Your task to perform on an android device: Search for razer huntsman on walmart, select the first entry, add it to the cart, then select checkout. Image 0: 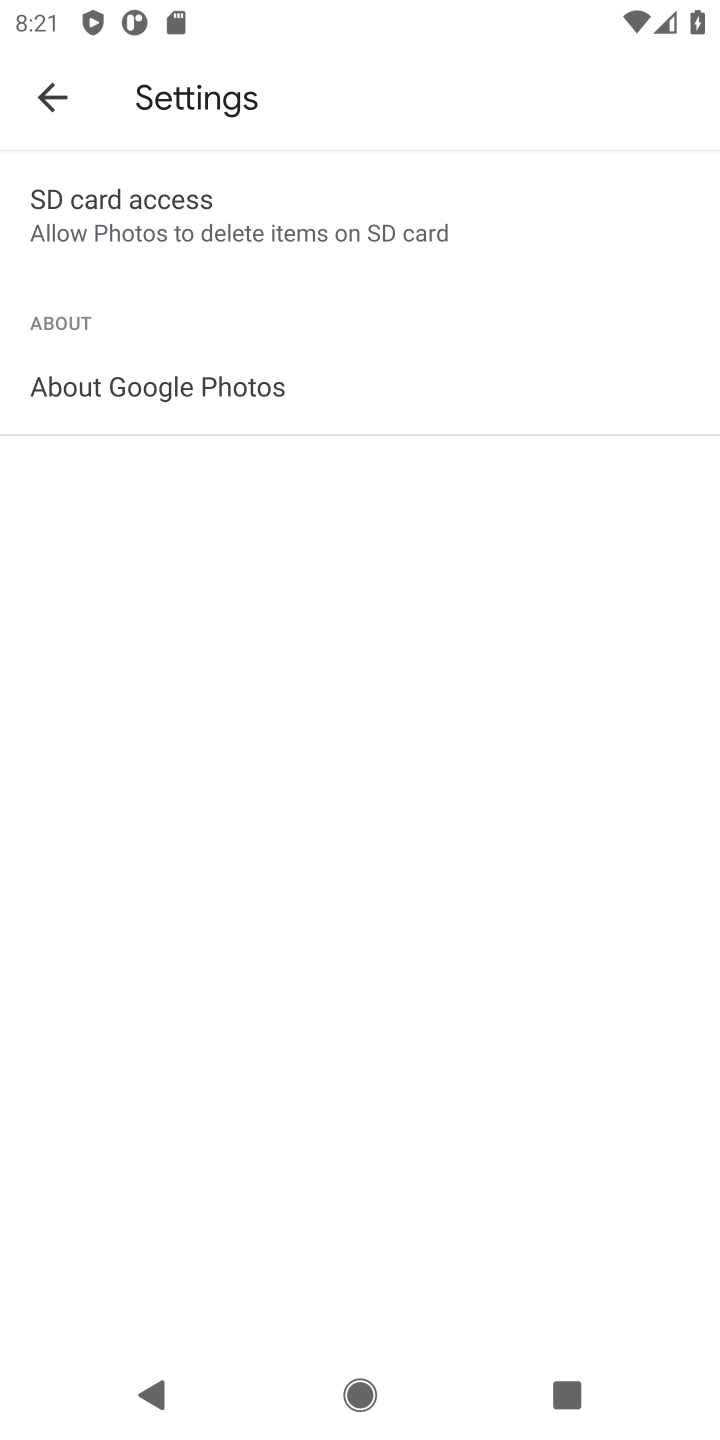
Step 0: press home button
Your task to perform on an android device: Search for razer huntsman on walmart, select the first entry, add it to the cart, then select checkout. Image 1: 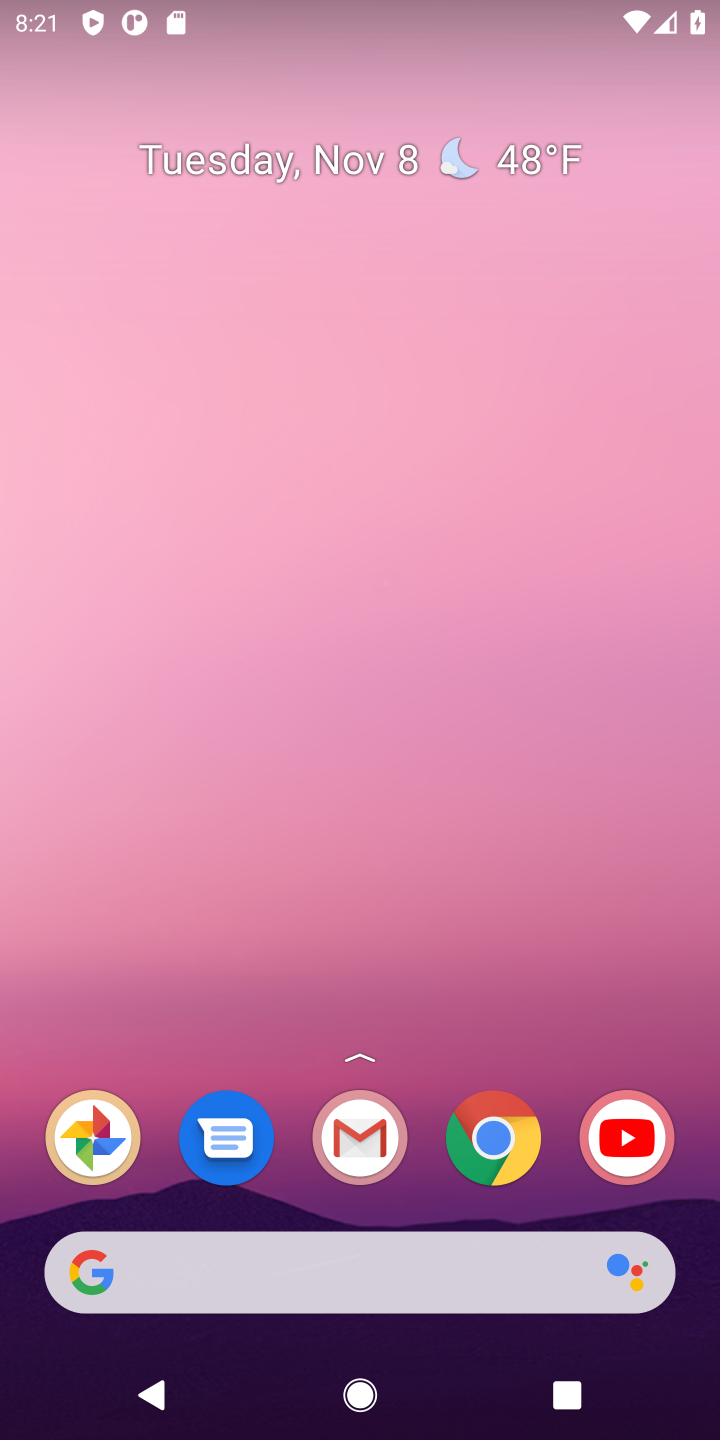
Step 1: click (505, 1149)
Your task to perform on an android device: Search for razer huntsman on walmart, select the first entry, add it to the cart, then select checkout. Image 2: 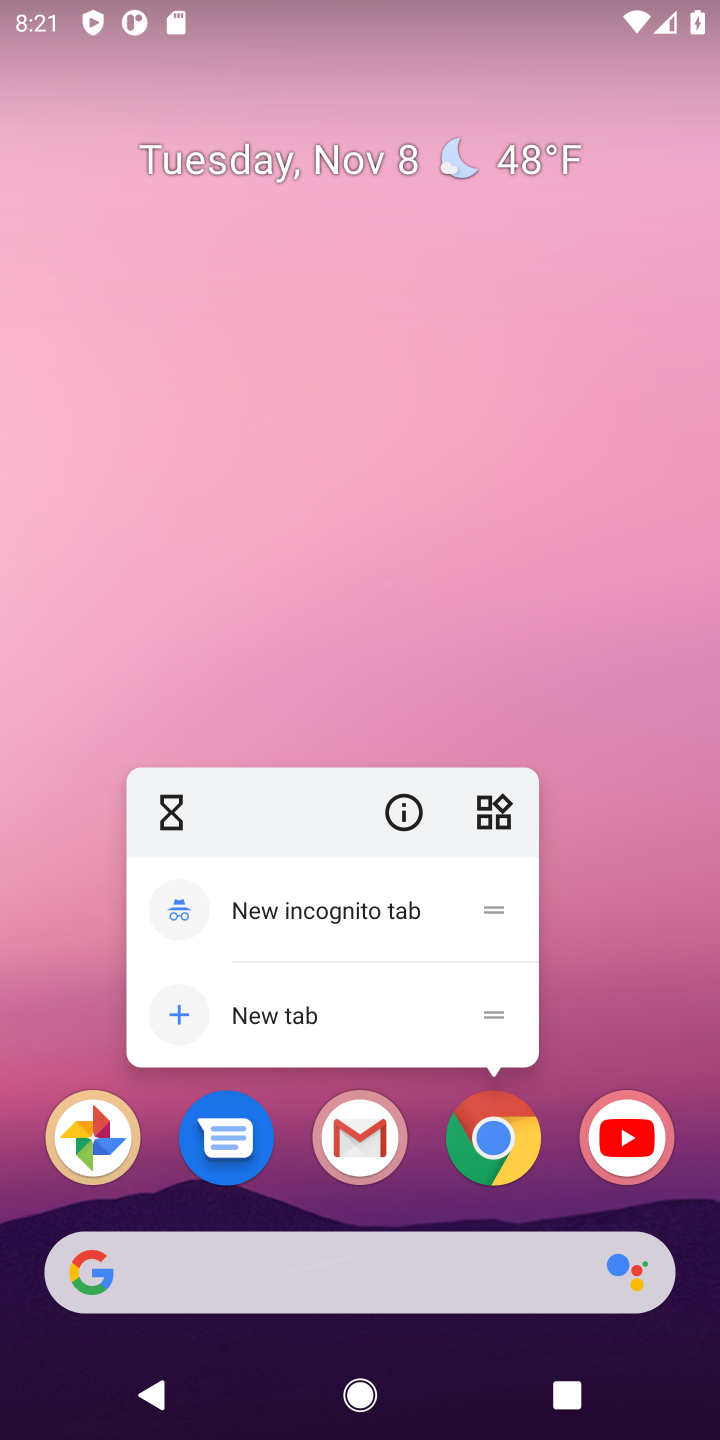
Step 2: click (488, 1129)
Your task to perform on an android device: Search for razer huntsman on walmart, select the first entry, add it to the cart, then select checkout. Image 3: 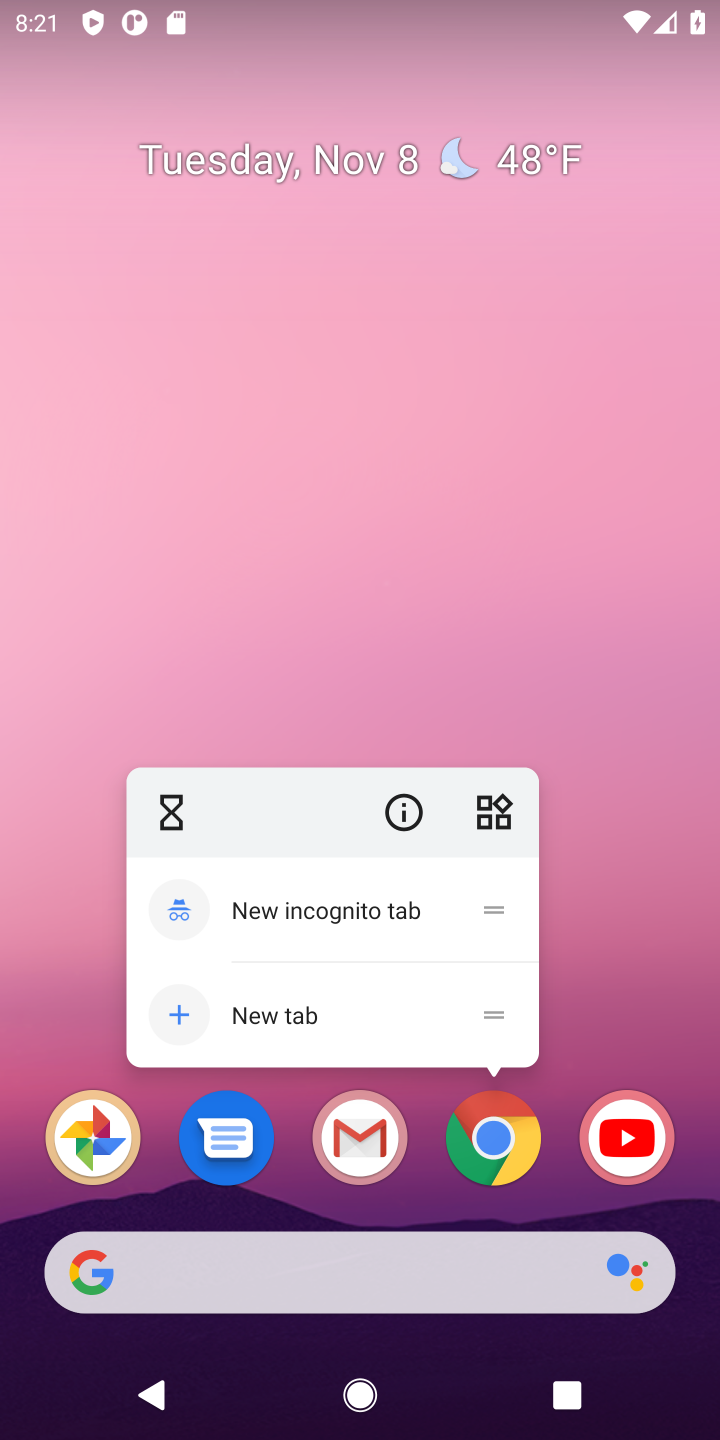
Step 3: click (487, 1142)
Your task to perform on an android device: Search for razer huntsman on walmart, select the first entry, add it to the cart, then select checkout. Image 4: 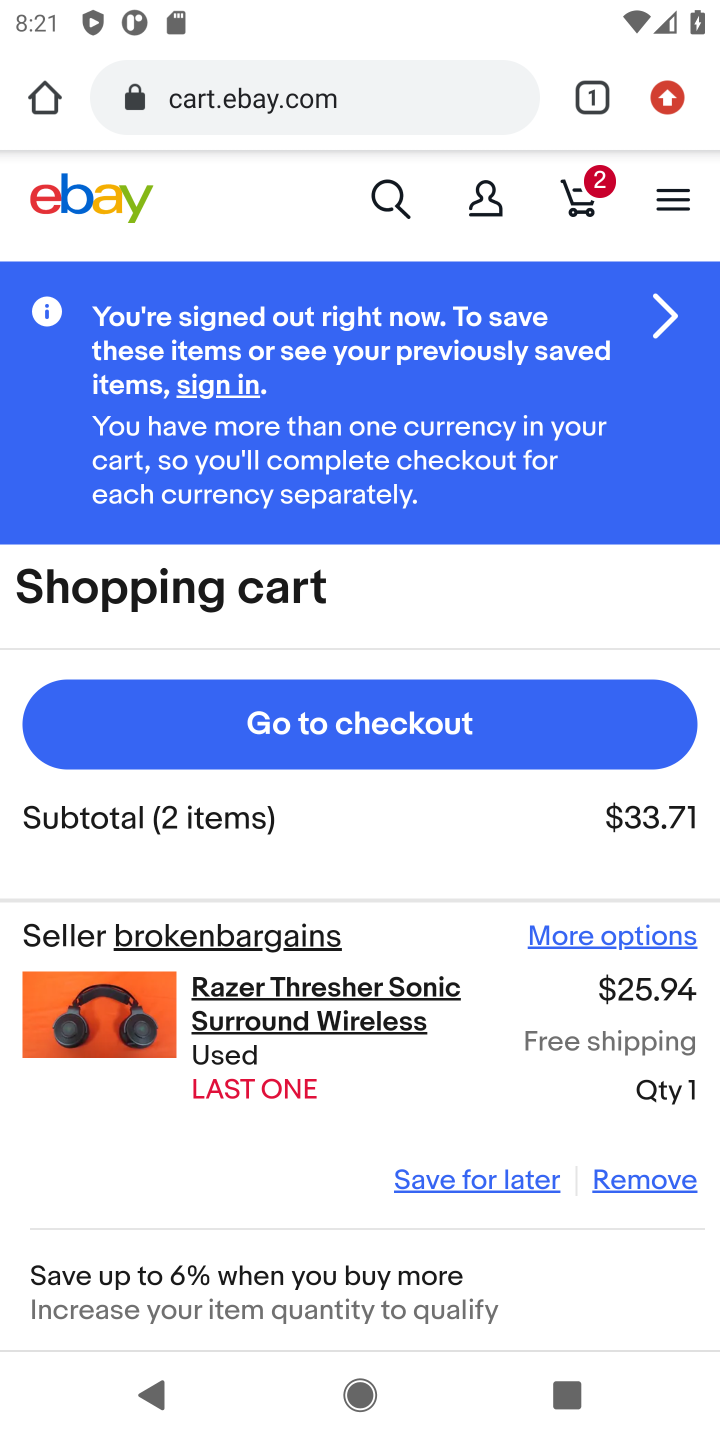
Step 4: click (342, 93)
Your task to perform on an android device: Search for razer huntsman on walmart, select the first entry, add it to the cart, then select checkout. Image 5: 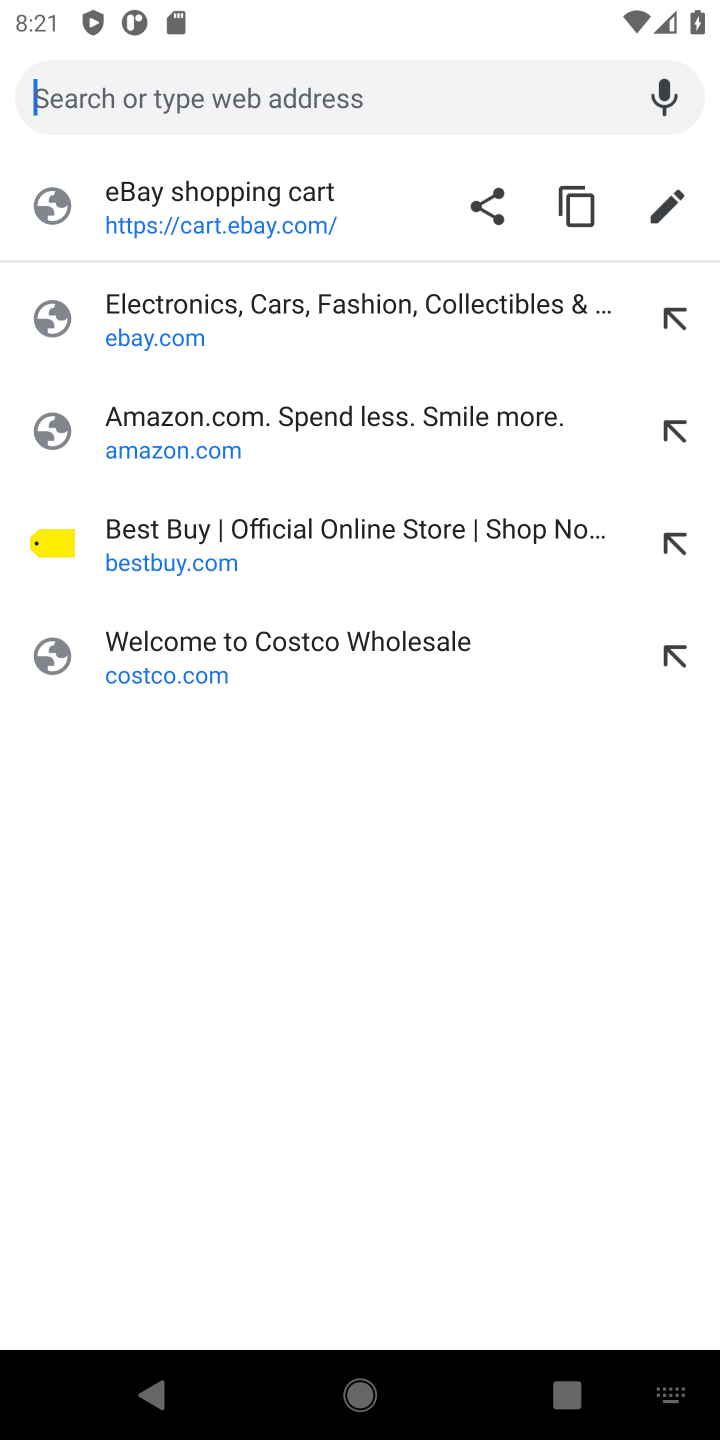
Step 5: type "walmart"
Your task to perform on an android device: Search for razer huntsman on walmart, select the first entry, add it to the cart, then select checkout. Image 6: 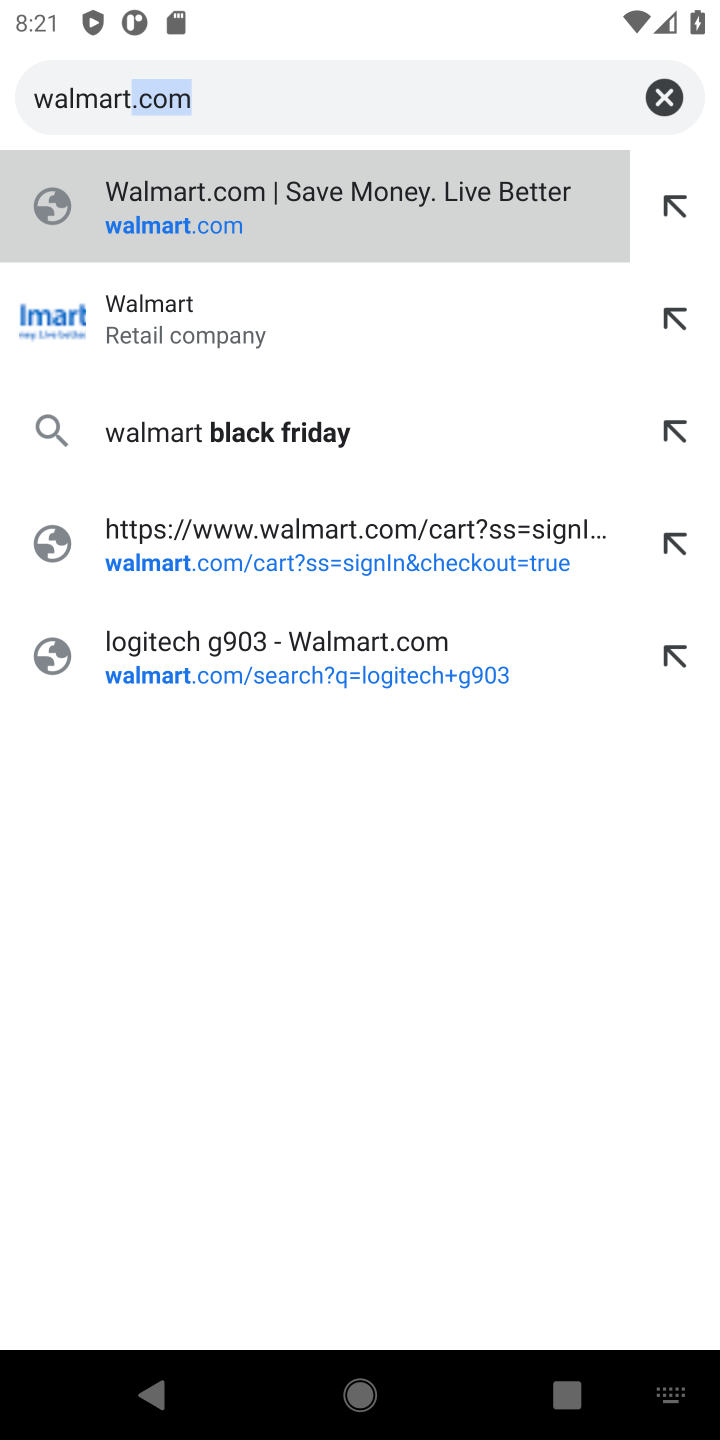
Step 6: press enter
Your task to perform on an android device: Search for razer huntsman on walmart, select the first entry, add it to the cart, then select checkout. Image 7: 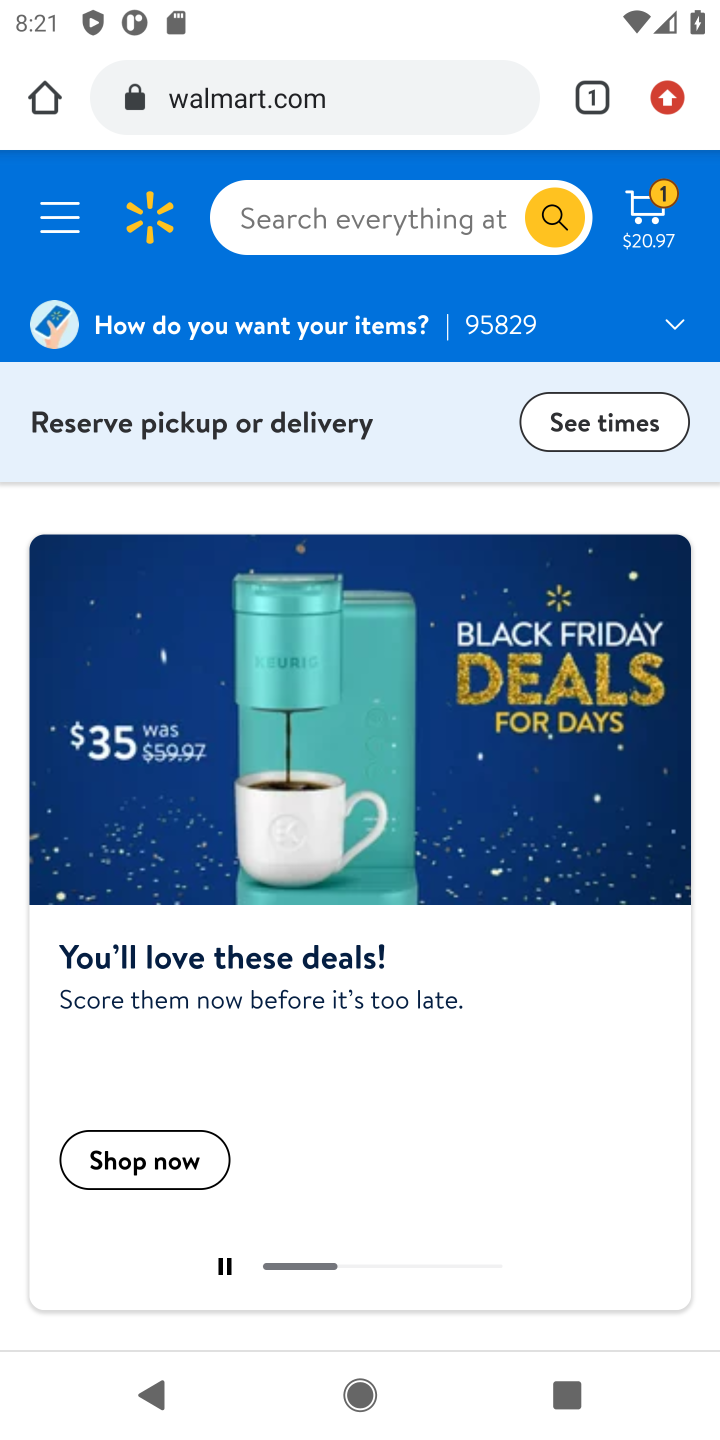
Step 7: click (369, 213)
Your task to perform on an android device: Search for razer huntsman on walmart, select the first entry, add it to the cart, then select checkout. Image 8: 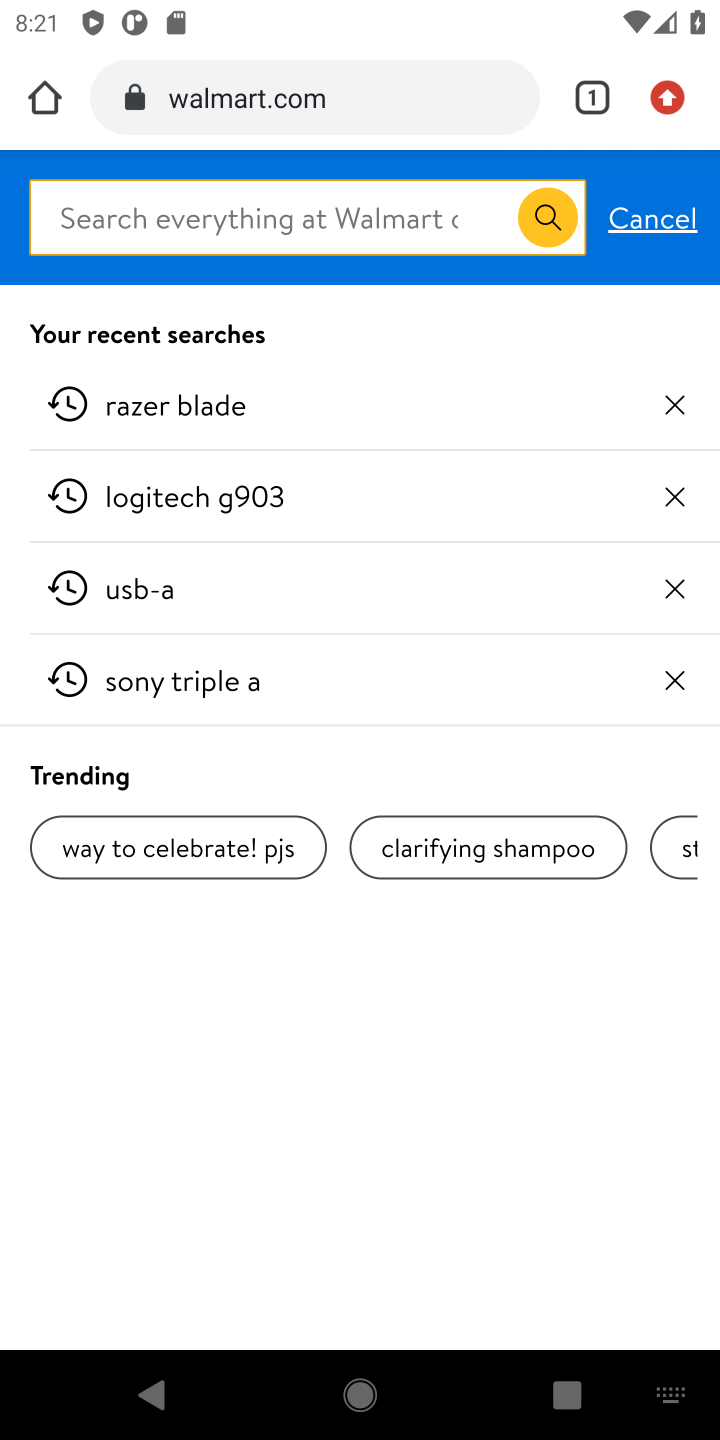
Step 8: type " razer huntsman"
Your task to perform on an android device: Search for razer huntsman on walmart, select the first entry, add it to the cart, then select checkout. Image 9: 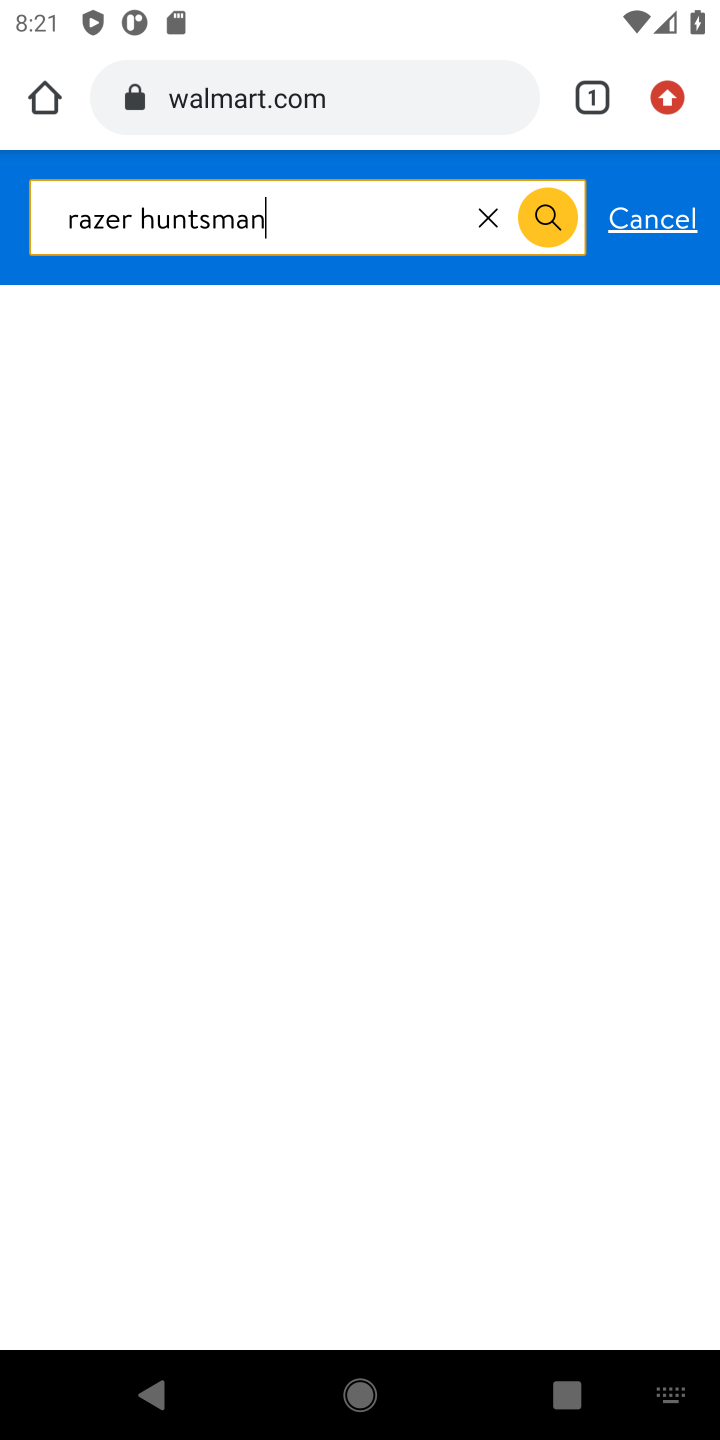
Step 9: press enter
Your task to perform on an android device: Search for razer huntsman on walmart, select the first entry, add it to the cart, then select checkout. Image 10: 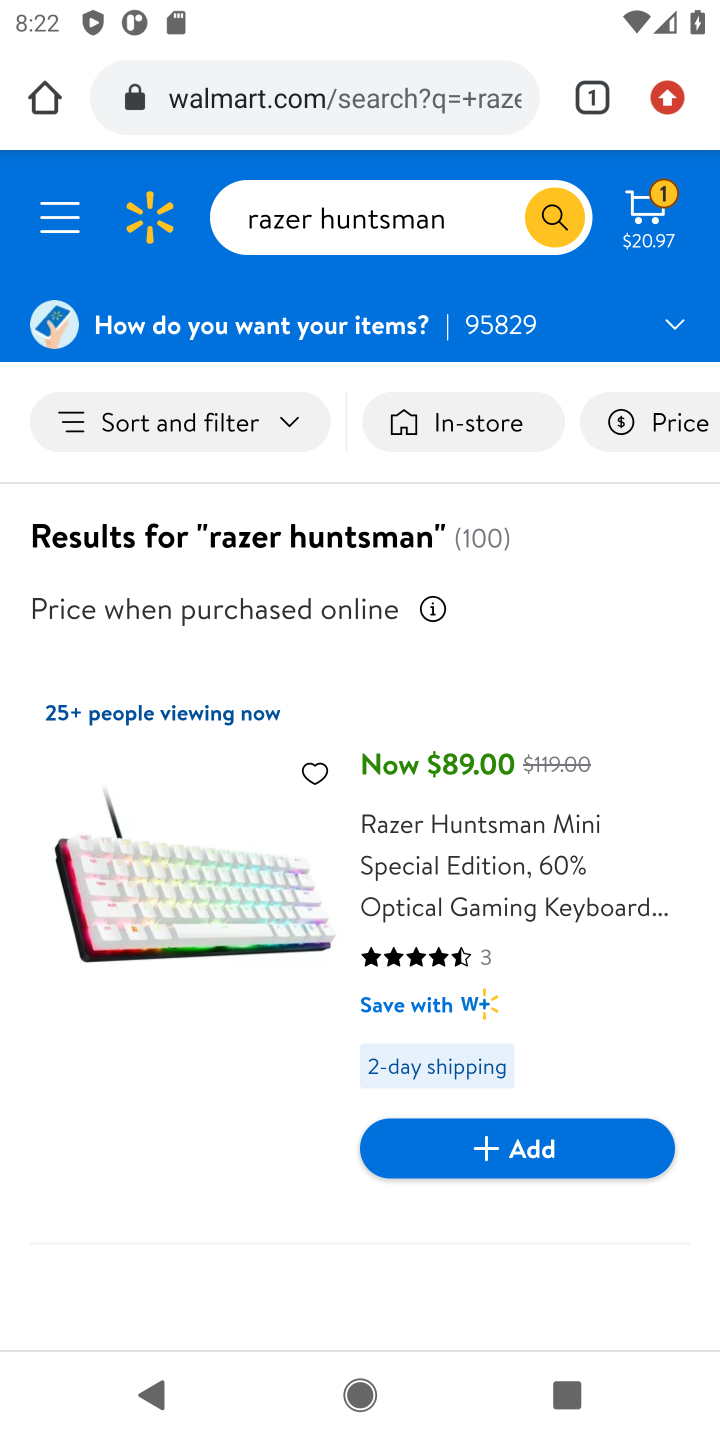
Step 10: click (491, 837)
Your task to perform on an android device: Search for razer huntsman on walmart, select the first entry, add it to the cart, then select checkout. Image 11: 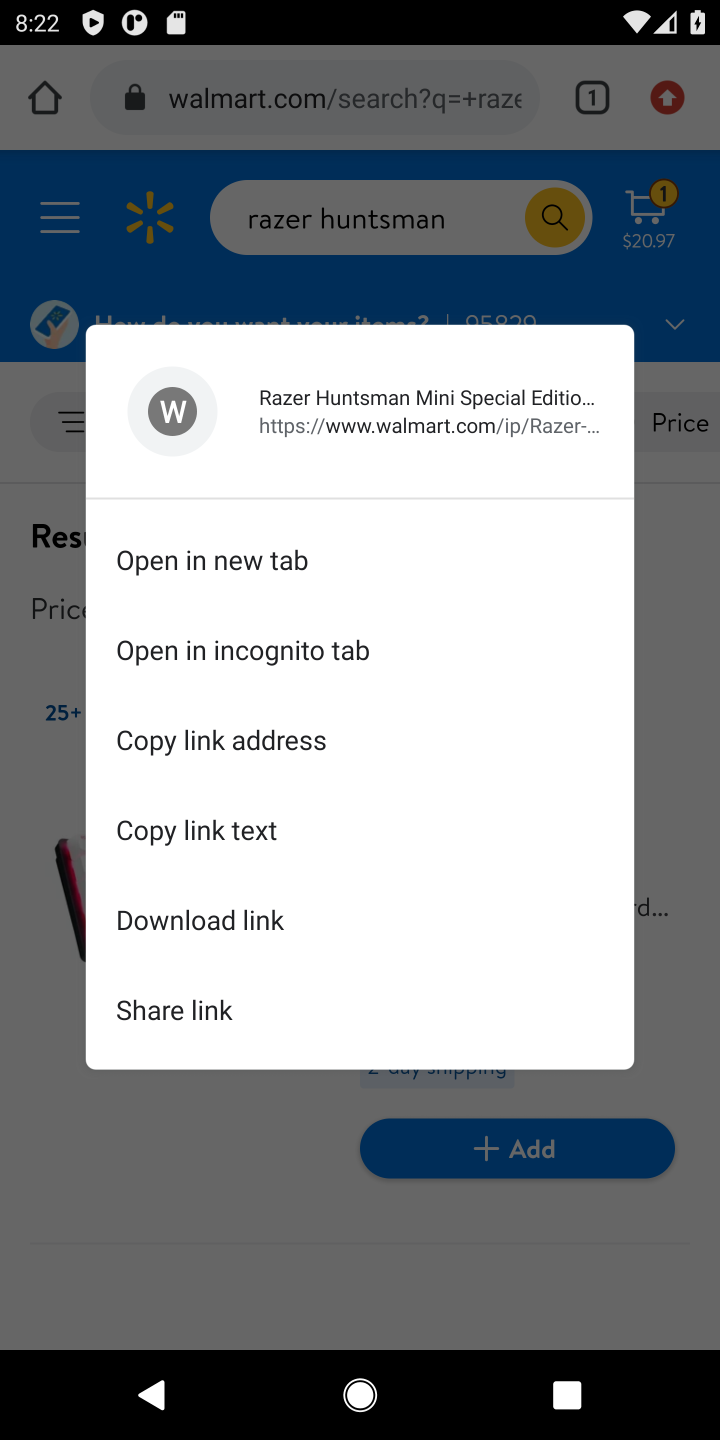
Step 11: click (683, 886)
Your task to perform on an android device: Search for razer huntsman on walmart, select the first entry, add it to the cart, then select checkout. Image 12: 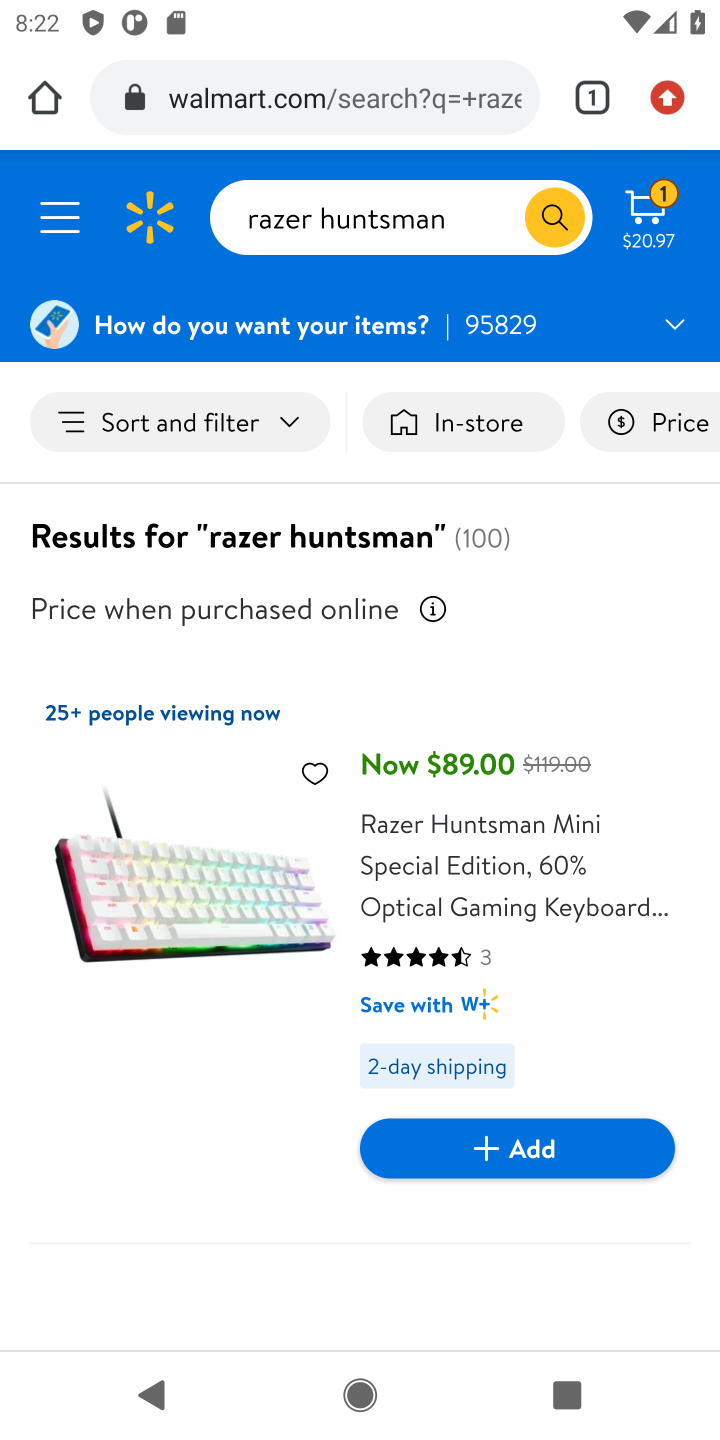
Step 12: click (299, 924)
Your task to perform on an android device: Search for razer huntsman on walmart, select the first entry, add it to the cart, then select checkout. Image 13: 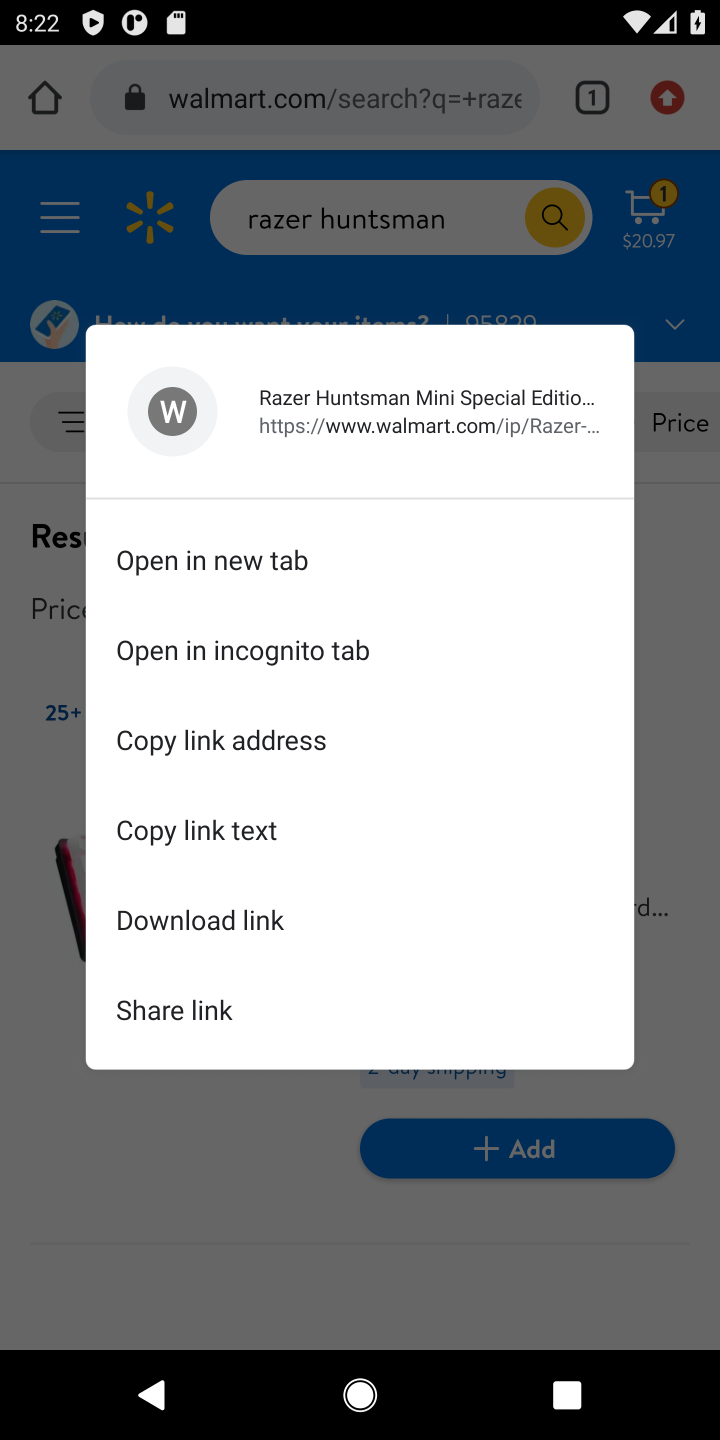
Step 13: click (677, 824)
Your task to perform on an android device: Search for razer huntsman on walmart, select the first entry, add it to the cart, then select checkout. Image 14: 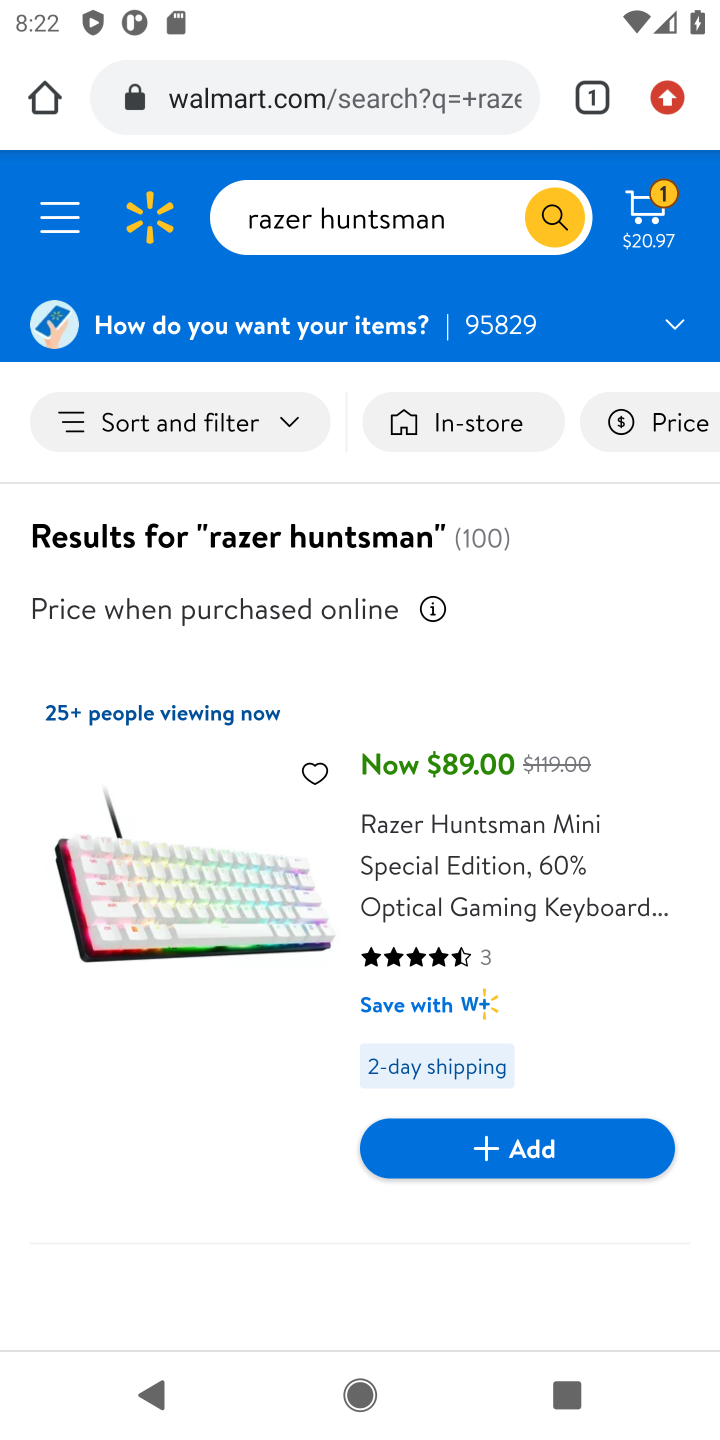
Step 14: click (501, 897)
Your task to perform on an android device: Search for razer huntsman on walmart, select the first entry, add it to the cart, then select checkout. Image 15: 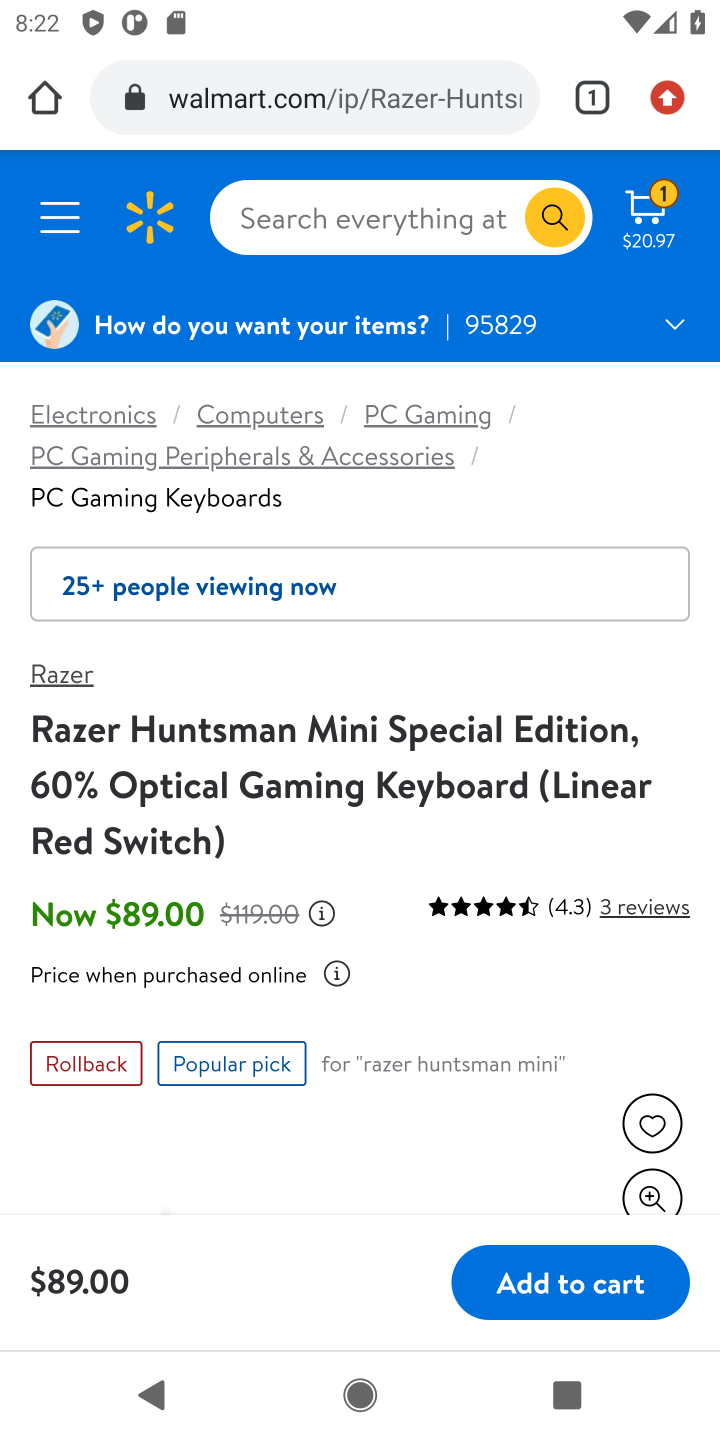
Step 15: click (569, 1277)
Your task to perform on an android device: Search for razer huntsman on walmart, select the first entry, add it to the cart, then select checkout. Image 16: 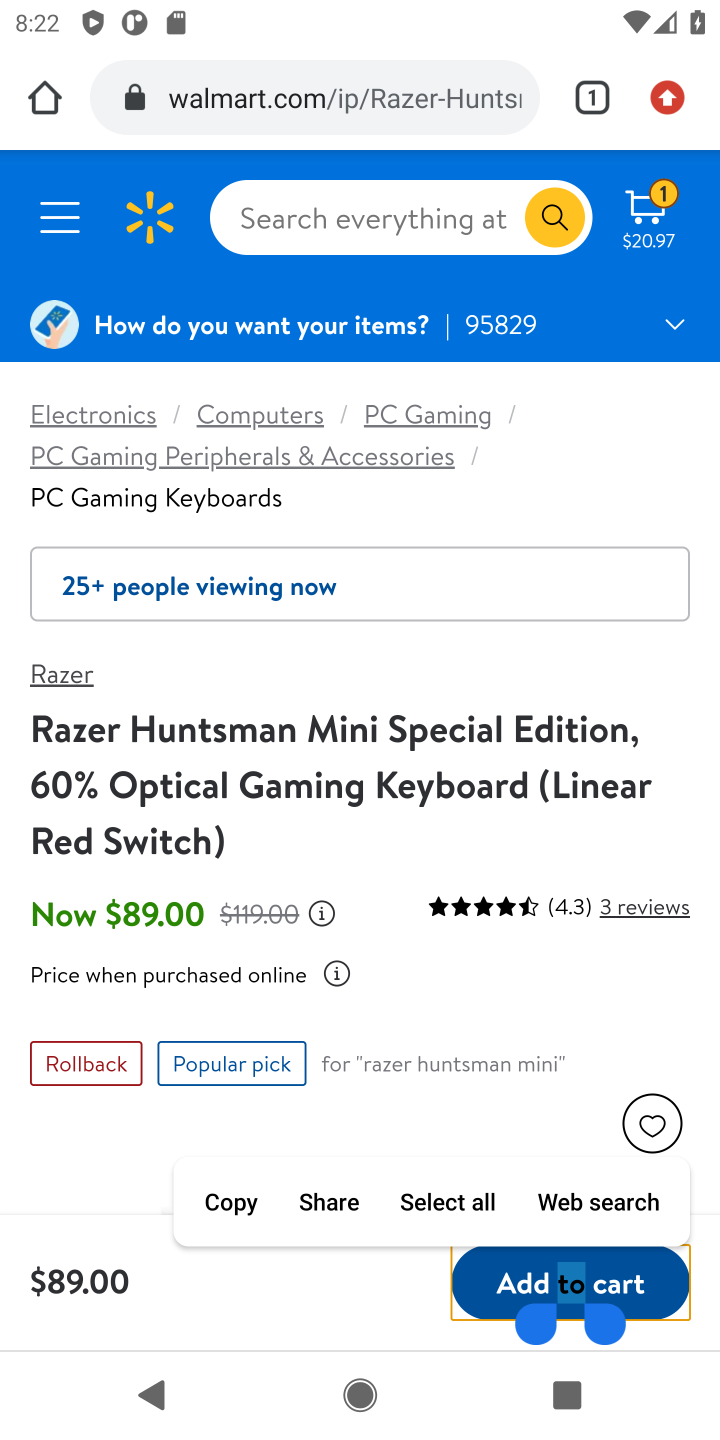
Step 16: click (514, 1290)
Your task to perform on an android device: Search for razer huntsman on walmart, select the first entry, add it to the cart, then select checkout. Image 17: 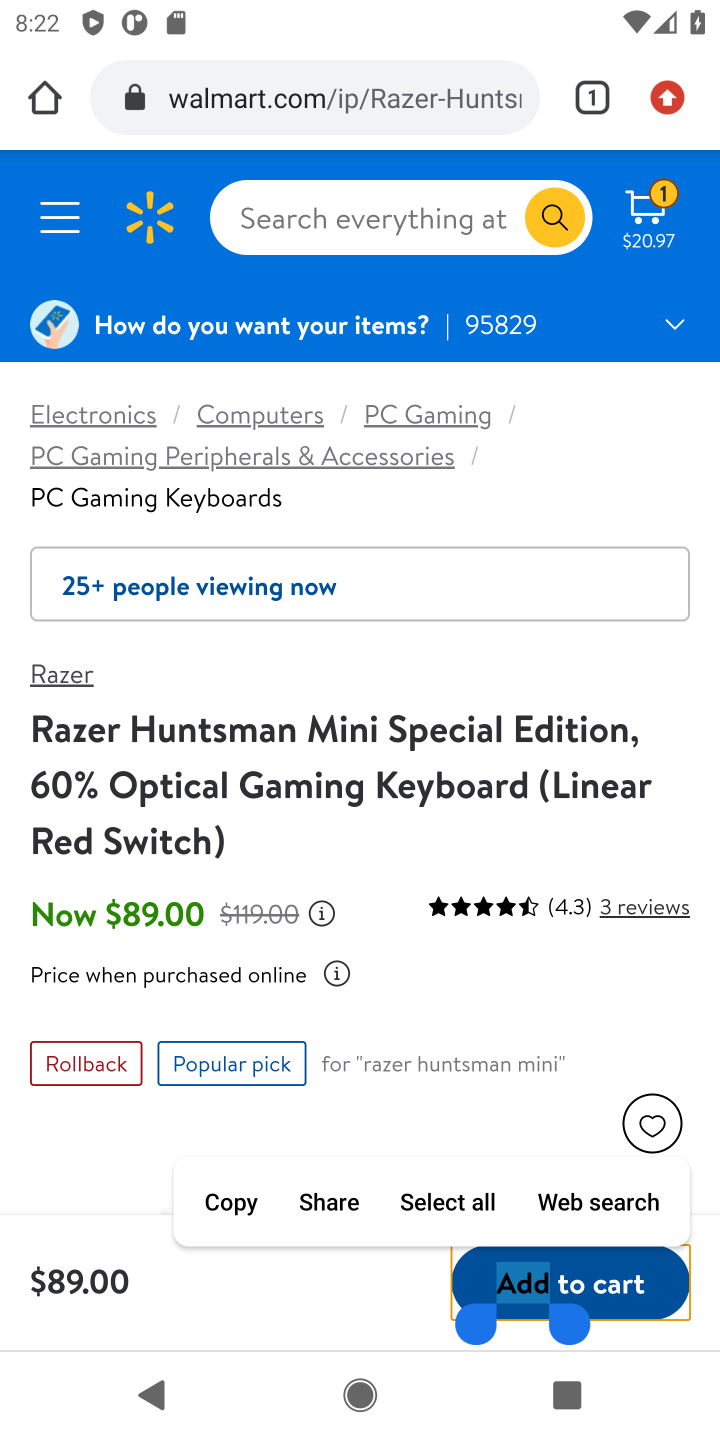
Step 17: click (585, 1286)
Your task to perform on an android device: Search for razer huntsman on walmart, select the first entry, add it to the cart, then select checkout. Image 18: 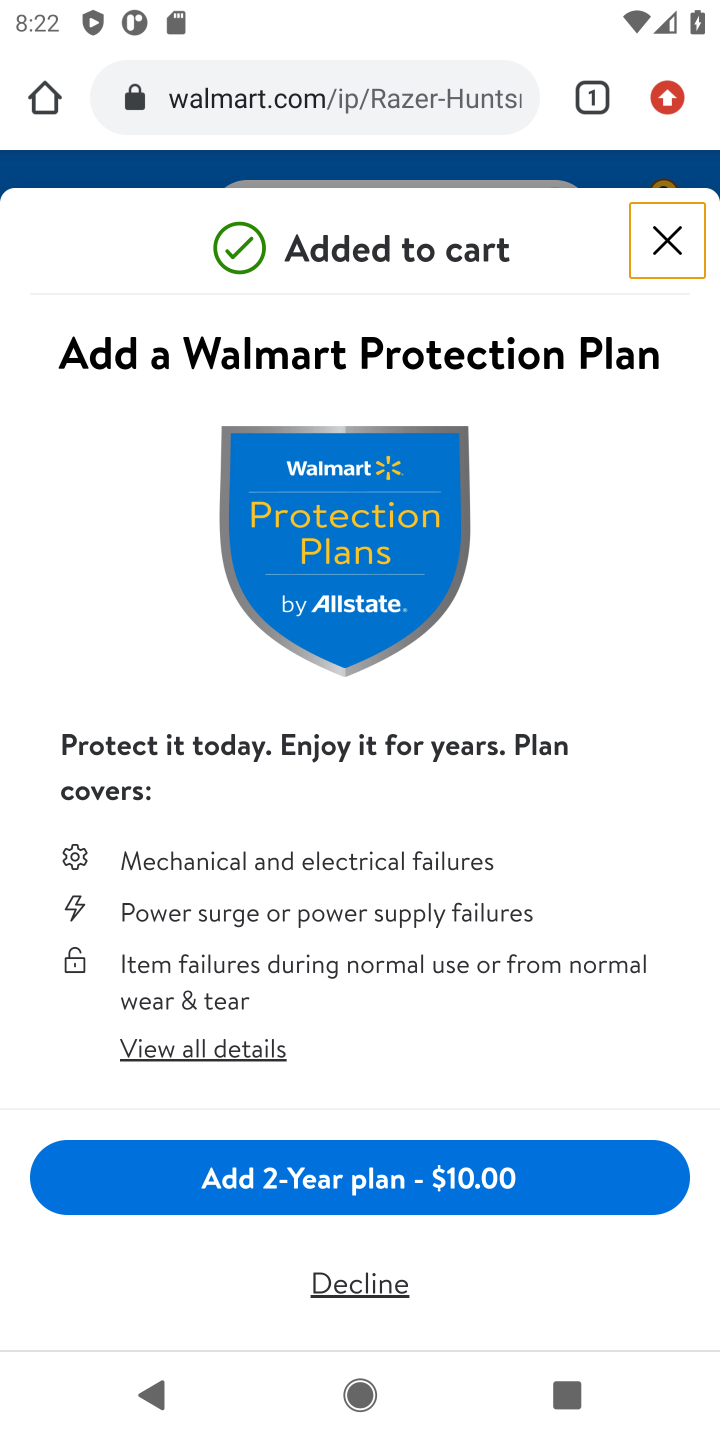
Step 18: click (668, 227)
Your task to perform on an android device: Search for razer huntsman on walmart, select the first entry, add it to the cart, then select checkout. Image 19: 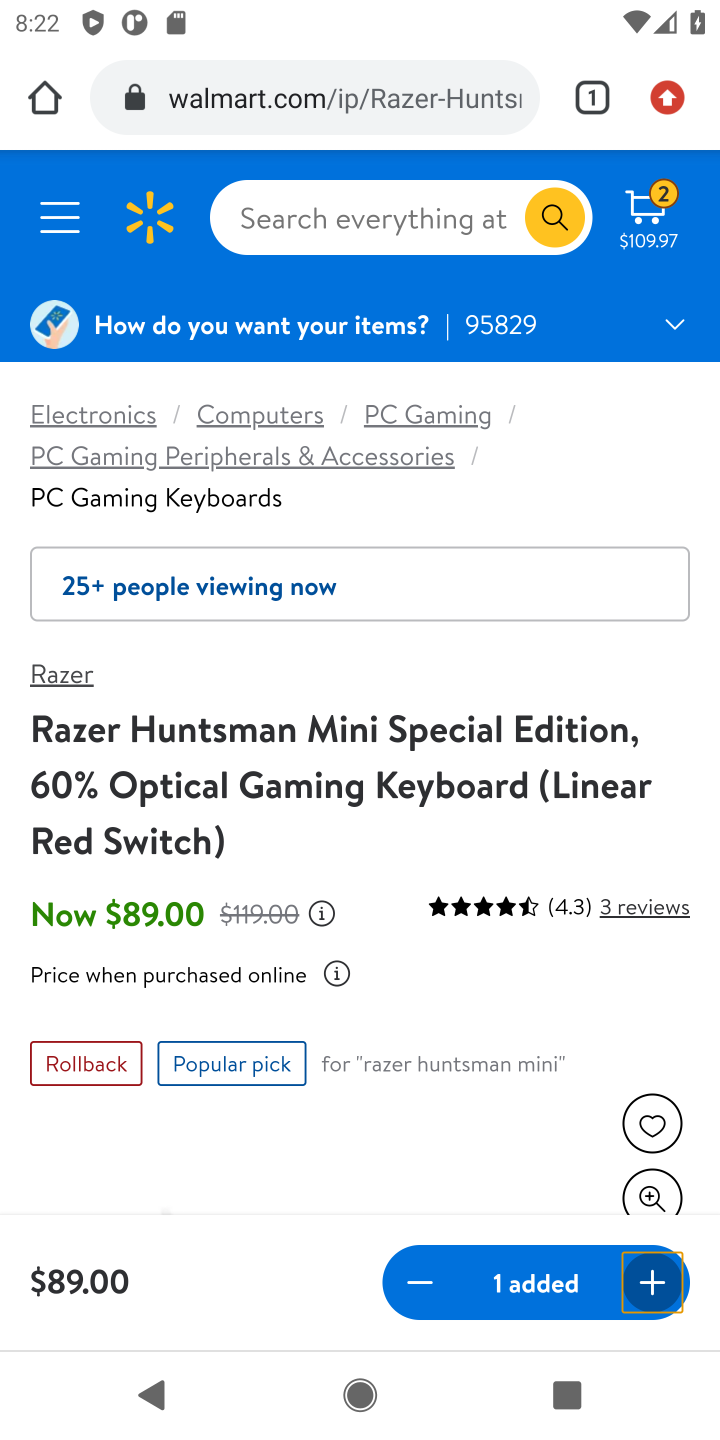
Step 19: click (647, 209)
Your task to perform on an android device: Search for razer huntsman on walmart, select the first entry, add it to the cart, then select checkout. Image 20: 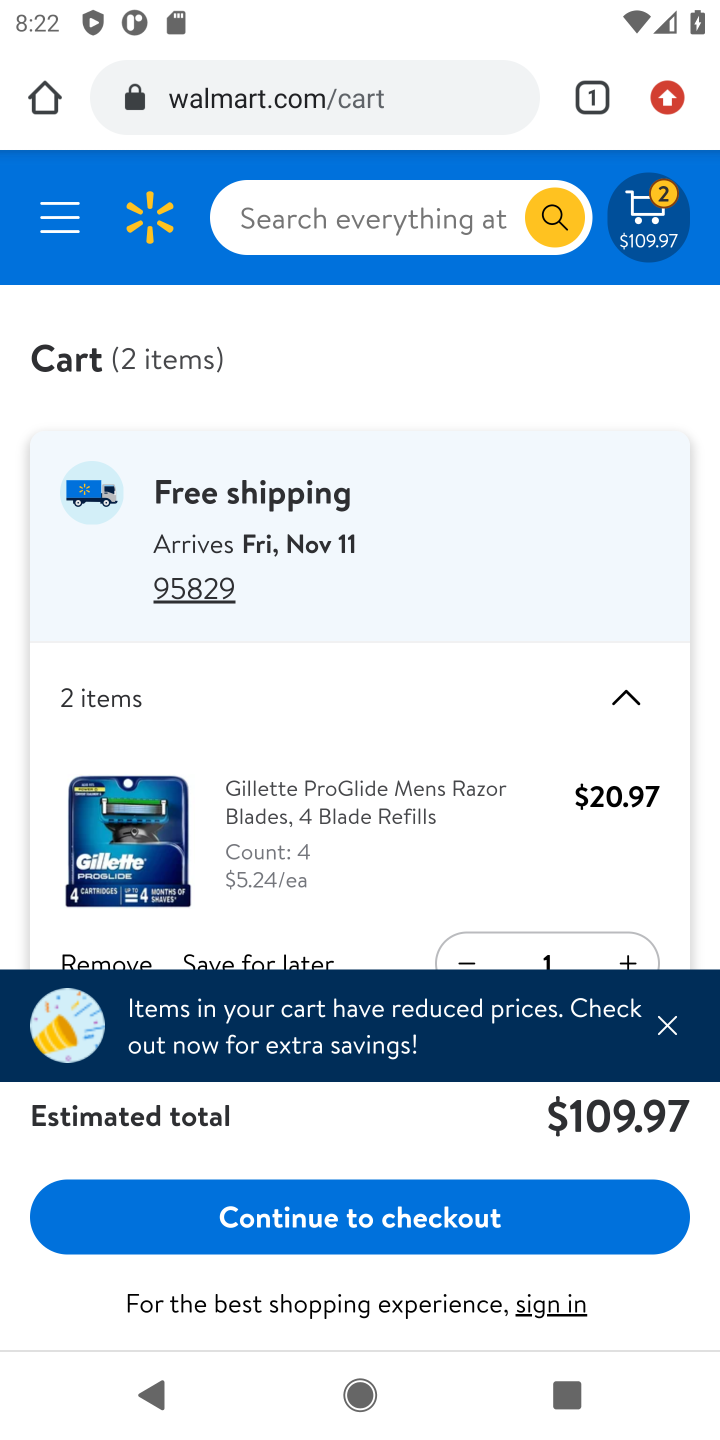
Step 20: drag from (341, 862) to (554, 344)
Your task to perform on an android device: Search for razer huntsman on walmart, select the first entry, add it to the cart, then select checkout. Image 21: 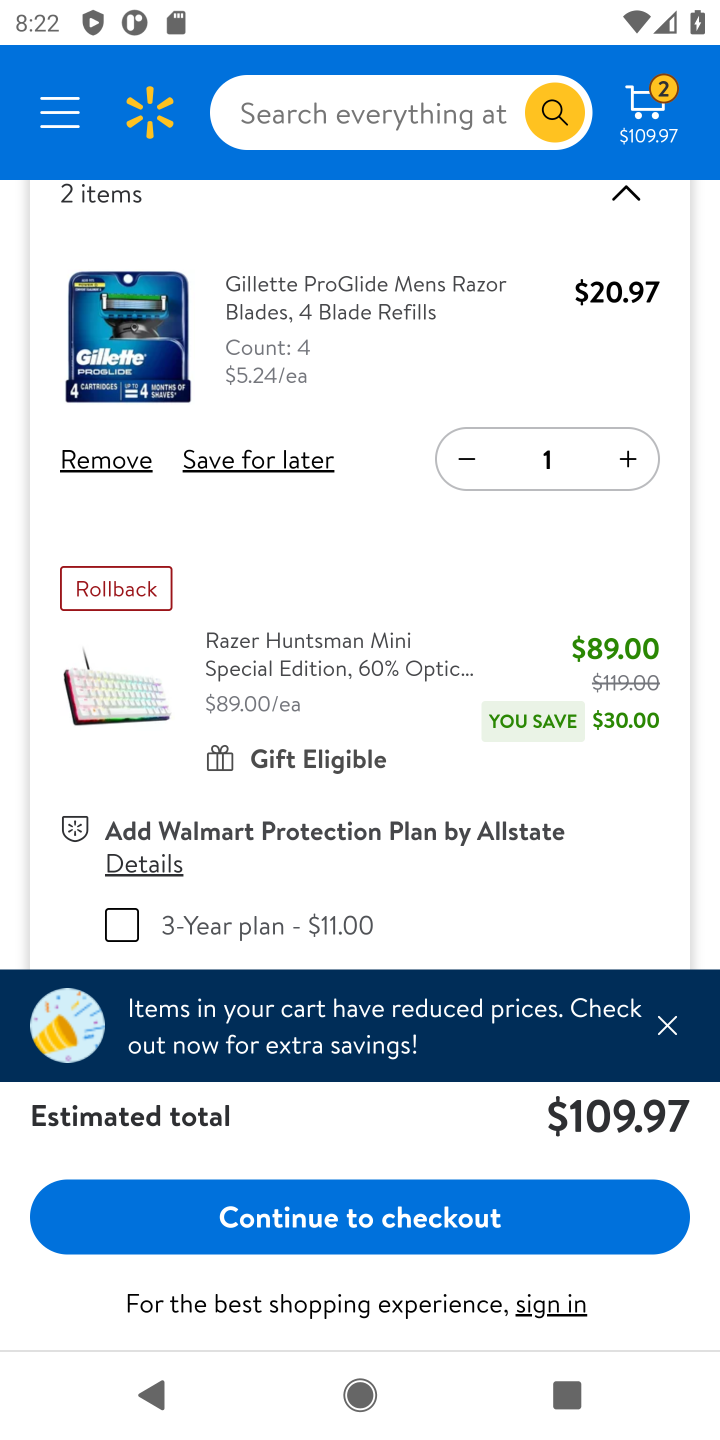
Step 21: click (114, 448)
Your task to perform on an android device: Search for razer huntsman on walmart, select the first entry, add it to the cart, then select checkout. Image 22: 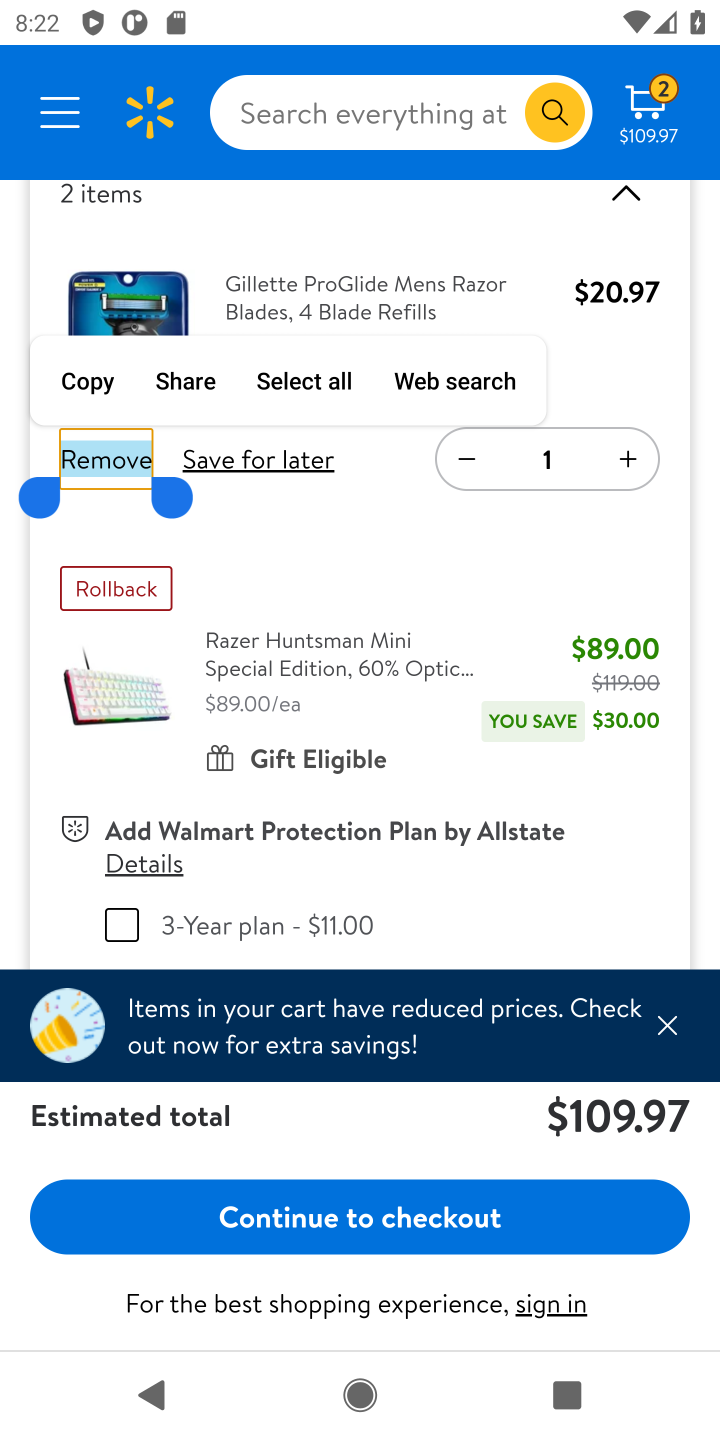
Step 22: click (99, 459)
Your task to perform on an android device: Search for razer huntsman on walmart, select the first entry, add it to the cart, then select checkout. Image 23: 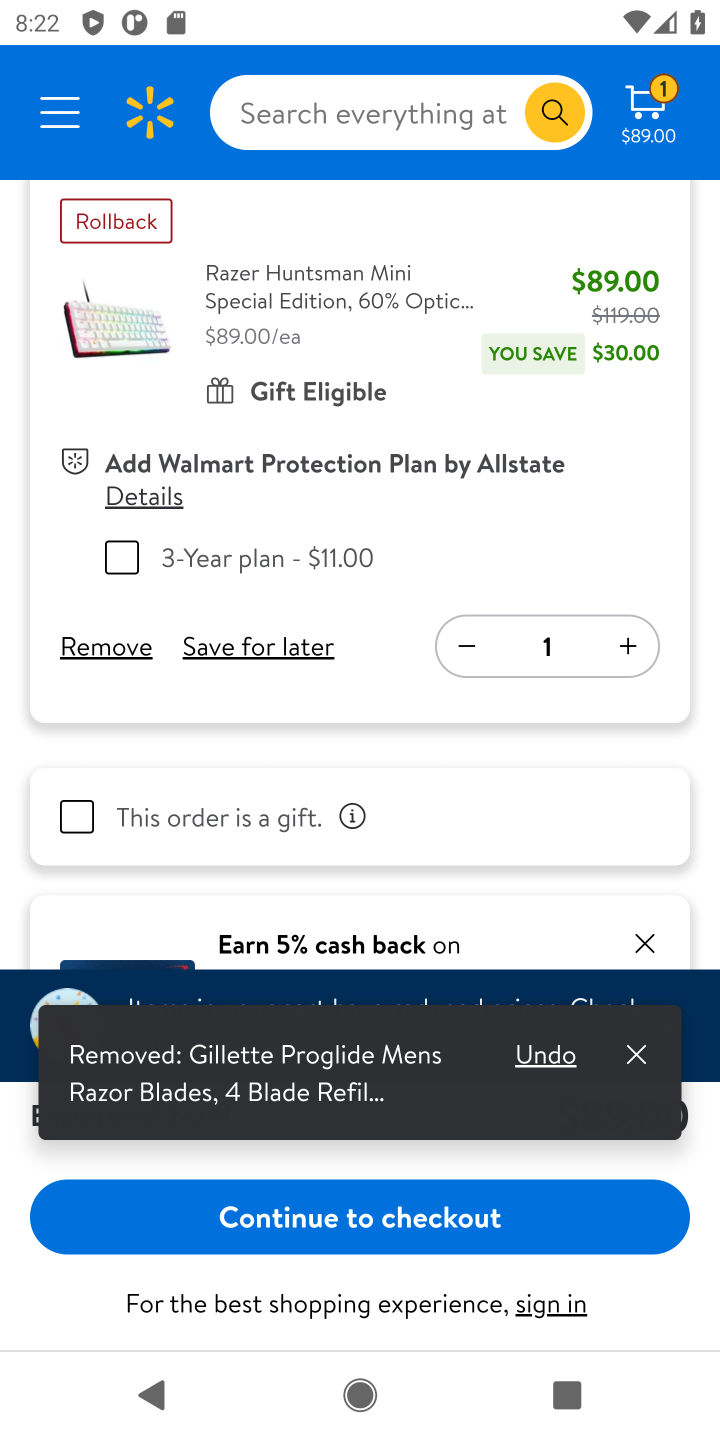
Step 23: drag from (411, 330) to (526, 881)
Your task to perform on an android device: Search for razer huntsman on walmart, select the first entry, add it to the cart, then select checkout. Image 24: 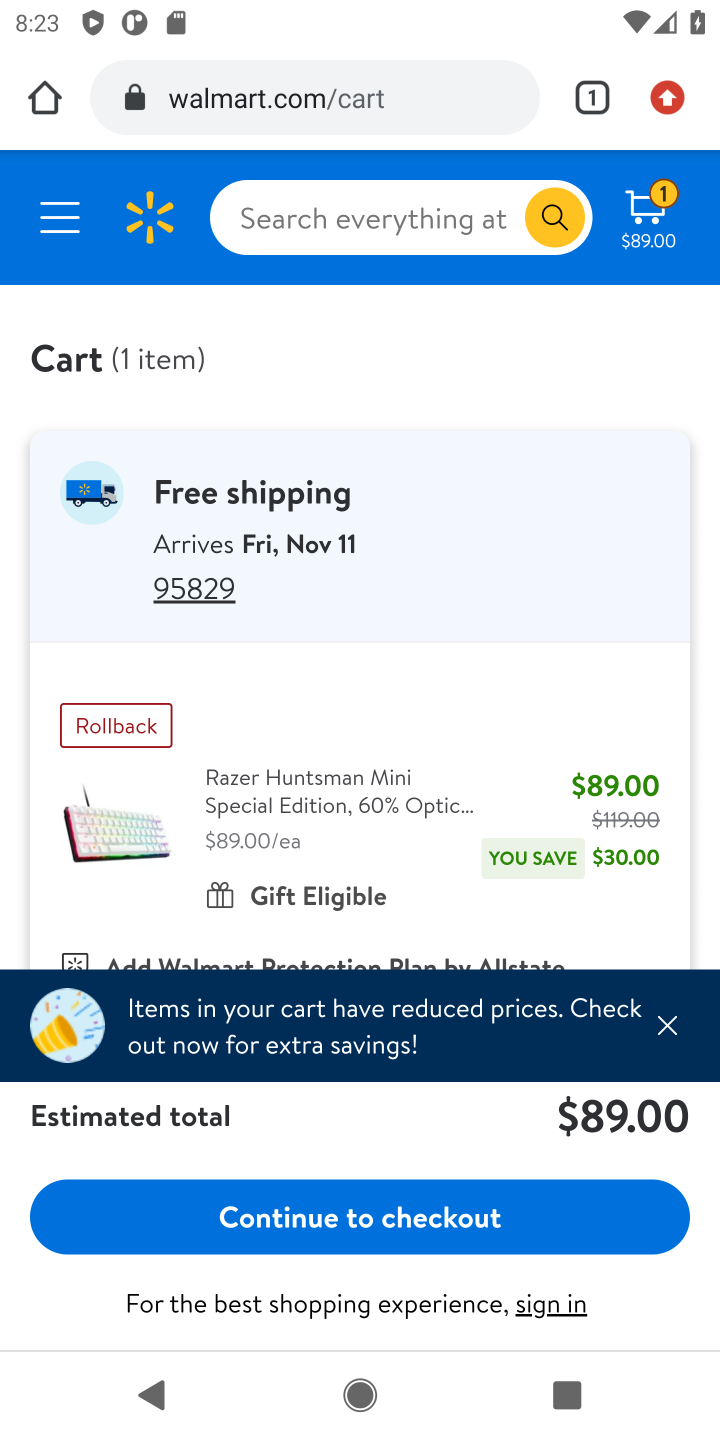
Step 24: click (429, 1212)
Your task to perform on an android device: Search for razer huntsman on walmart, select the first entry, add it to the cart, then select checkout. Image 25: 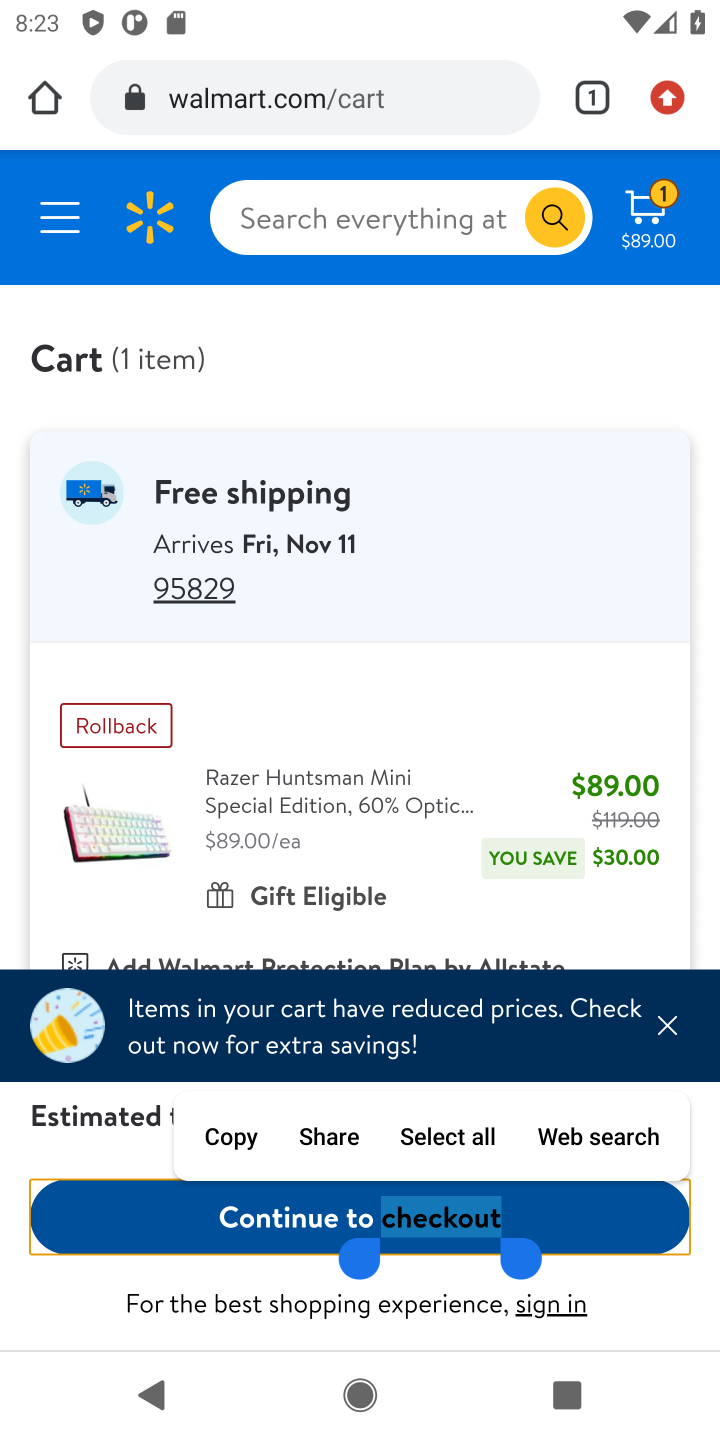
Step 25: click (326, 1224)
Your task to perform on an android device: Search for razer huntsman on walmart, select the first entry, add it to the cart, then select checkout. Image 26: 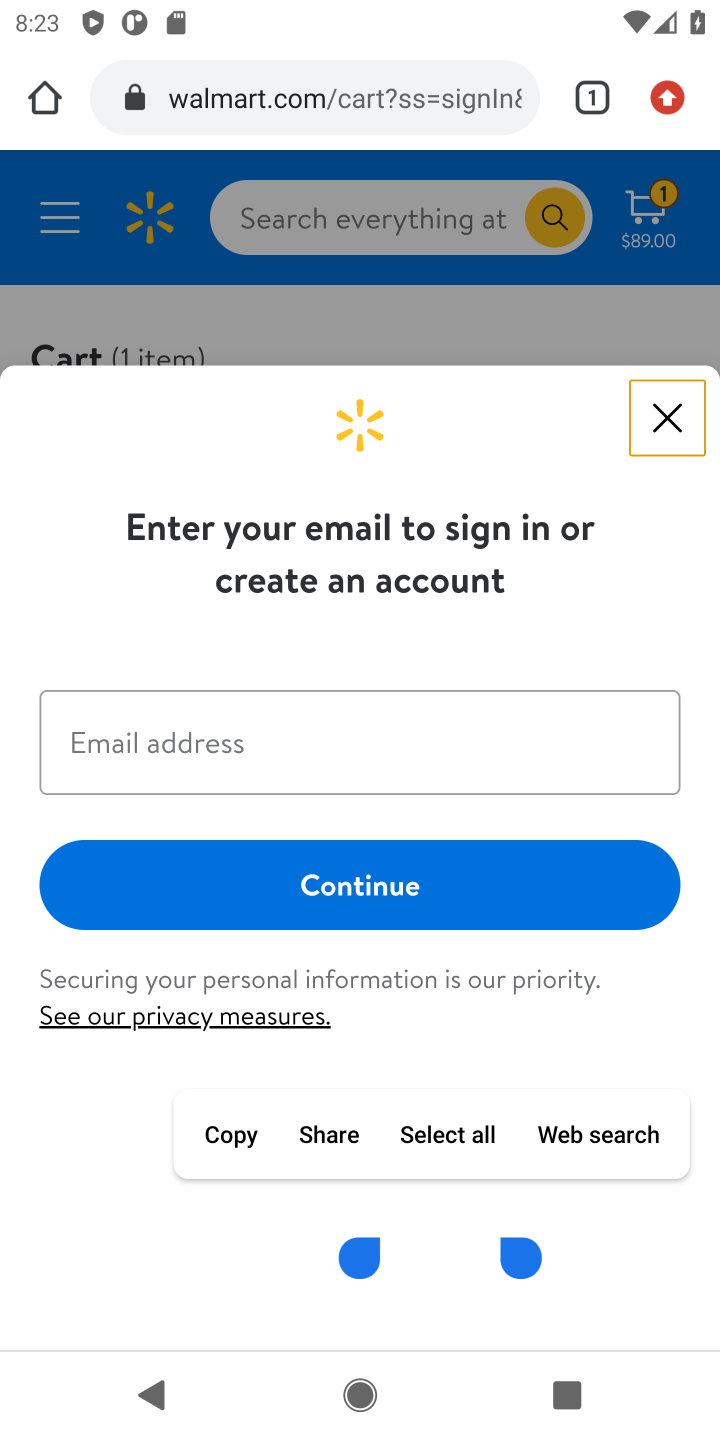
Step 26: task complete